Your task to perform on an android device: show emergency info Image 0: 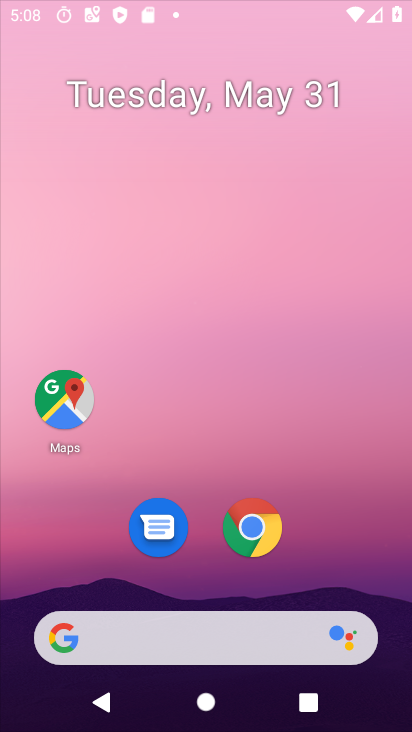
Step 0: drag from (357, 236) to (384, 71)
Your task to perform on an android device: show emergency info Image 1: 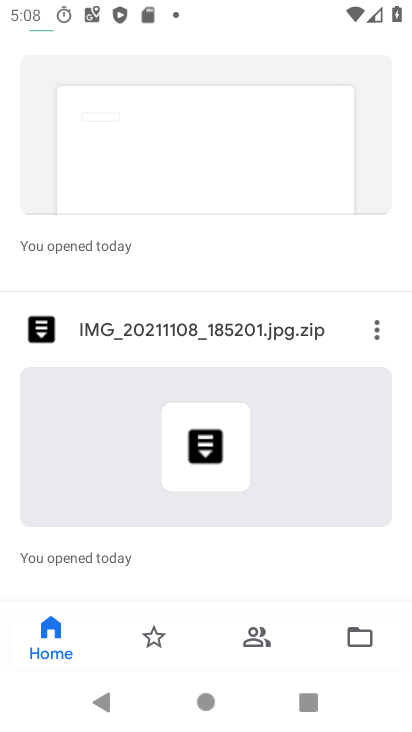
Step 1: press home button
Your task to perform on an android device: show emergency info Image 2: 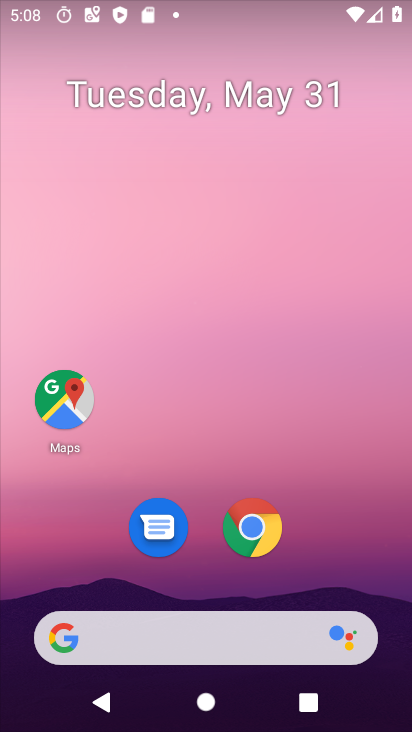
Step 2: drag from (304, 535) to (322, 134)
Your task to perform on an android device: show emergency info Image 3: 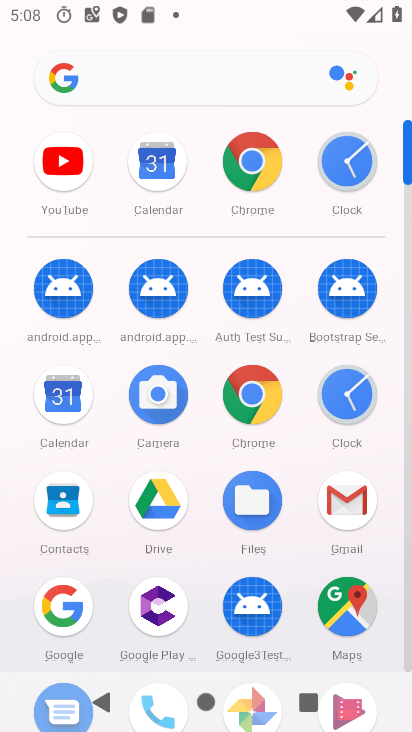
Step 3: drag from (200, 317) to (198, 101)
Your task to perform on an android device: show emergency info Image 4: 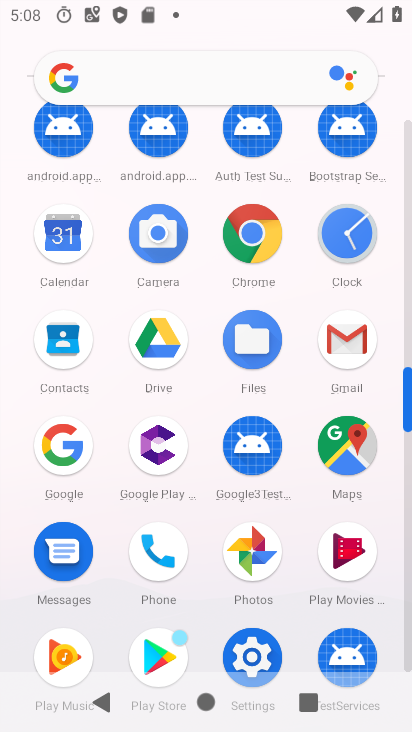
Step 4: click (258, 658)
Your task to perform on an android device: show emergency info Image 5: 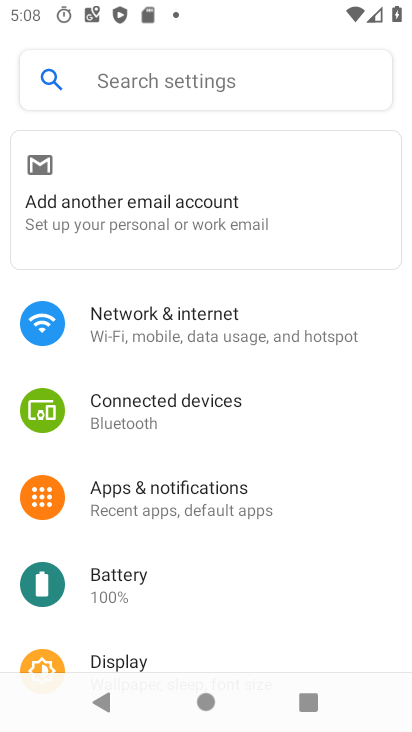
Step 5: drag from (231, 589) to (241, 118)
Your task to perform on an android device: show emergency info Image 6: 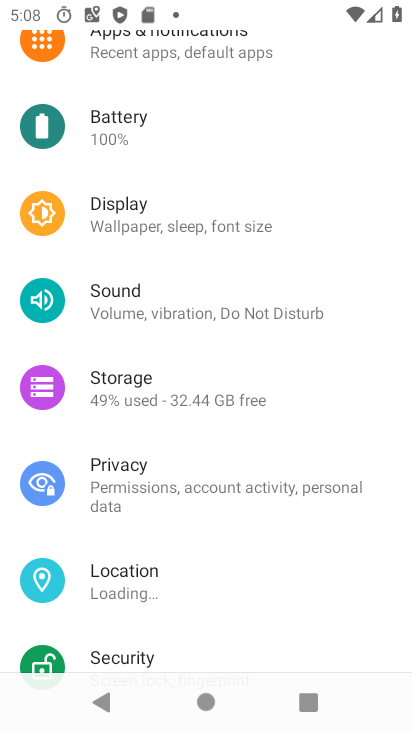
Step 6: drag from (196, 616) to (236, 260)
Your task to perform on an android device: show emergency info Image 7: 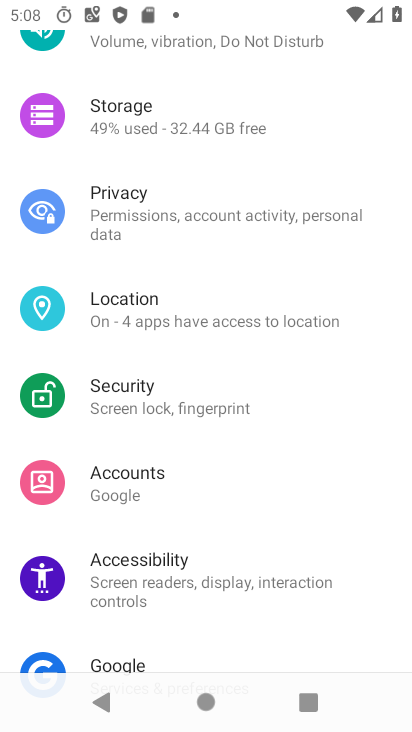
Step 7: drag from (200, 575) to (233, 208)
Your task to perform on an android device: show emergency info Image 8: 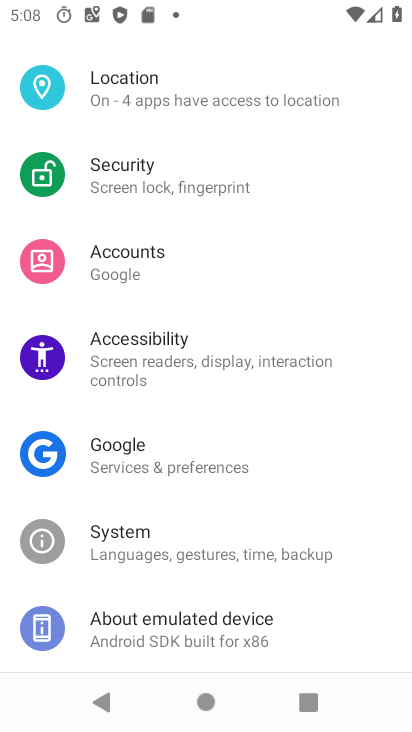
Step 8: drag from (201, 217) to (154, 530)
Your task to perform on an android device: show emergency info Image 9: 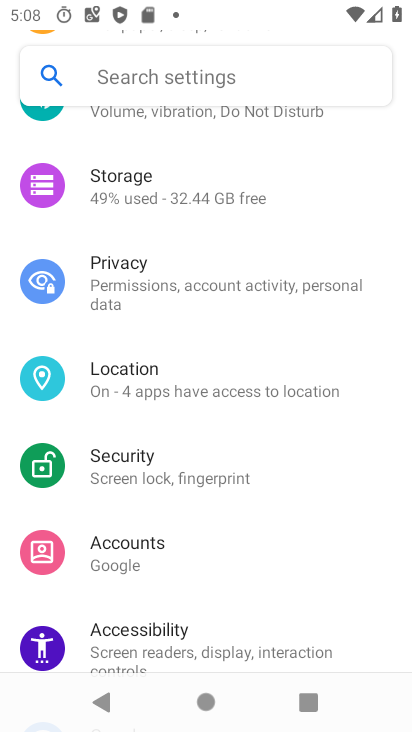
Step 9: drag from (205, 245) to (179, 524)
Your task to perform on an android device: show emergency info Image 10: 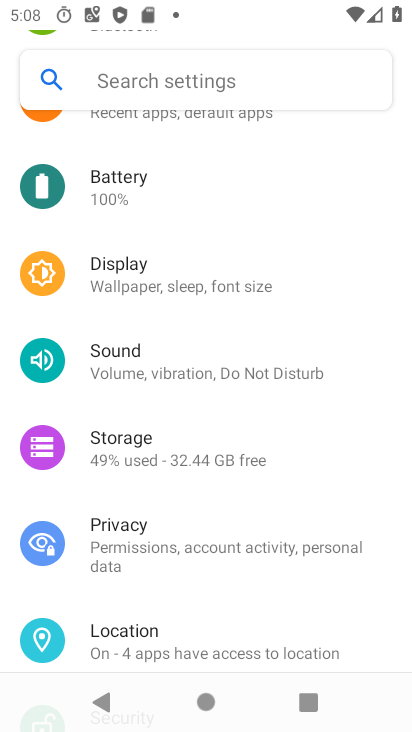
Step 10: drag from (231, 266) to (194, 545)
Your task to perform on an android device: show emergency info Image 11: 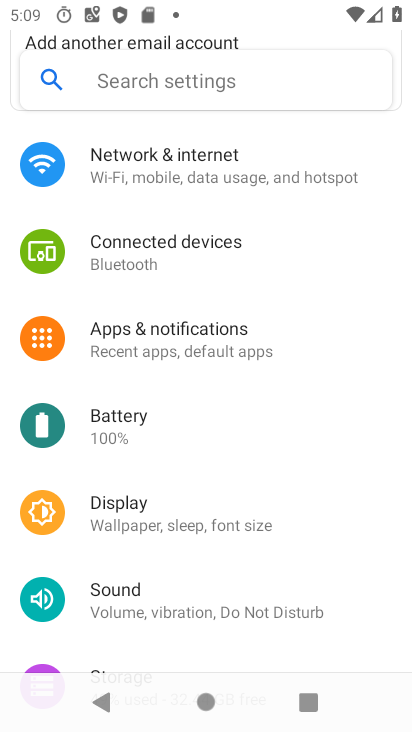
Step 11: drag from (235, 338) to (224, 455)
Your task to perform on an android device: show emergency info Image 12: 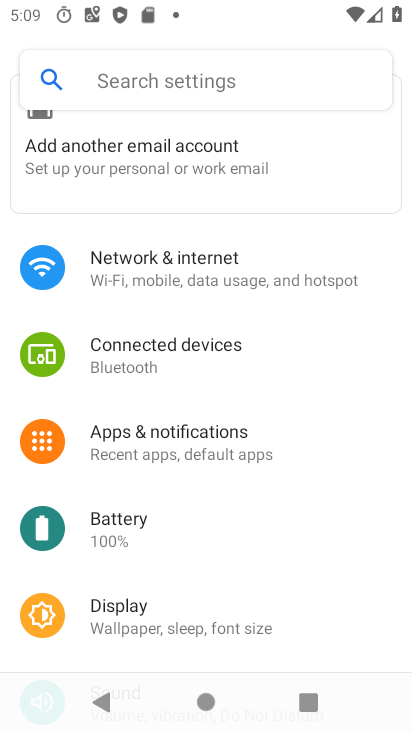
Step 12: drag from (216, 572) to (303, 31)
Your task to perform on an android device: show emergency info Image 13: 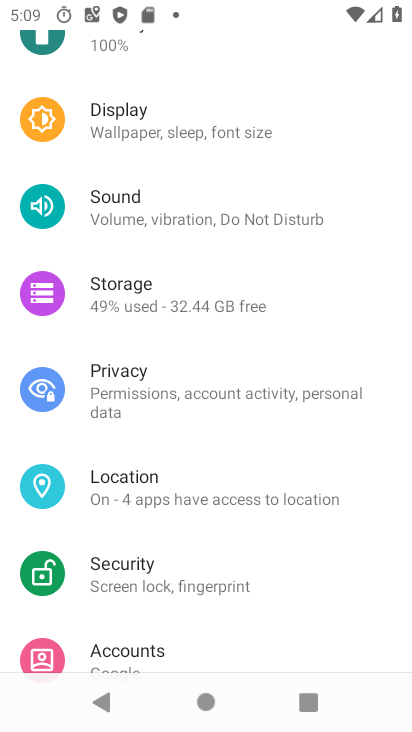
Step 13: drag from (194, 541) to (266, 103)
Your task to perform on an android device: show emergency info Image 14: 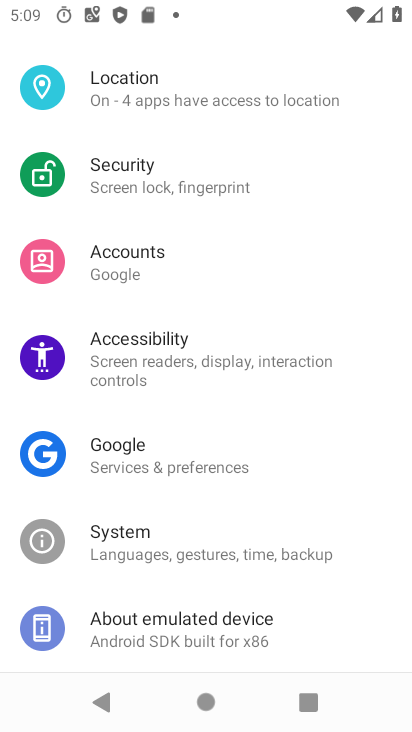
Step 14: drag from (212, 546) to (259, 100)
Your task to perform on an android device: show emergency info Image 15: 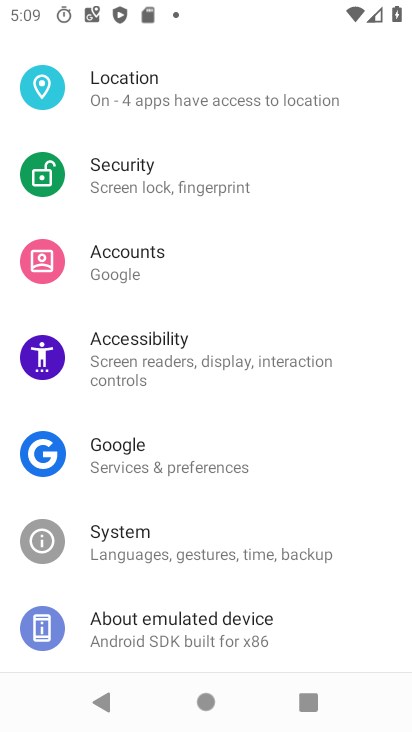
Step 15: click (192, 629)
Your task to perform on an android device: show emergency info Image 16: 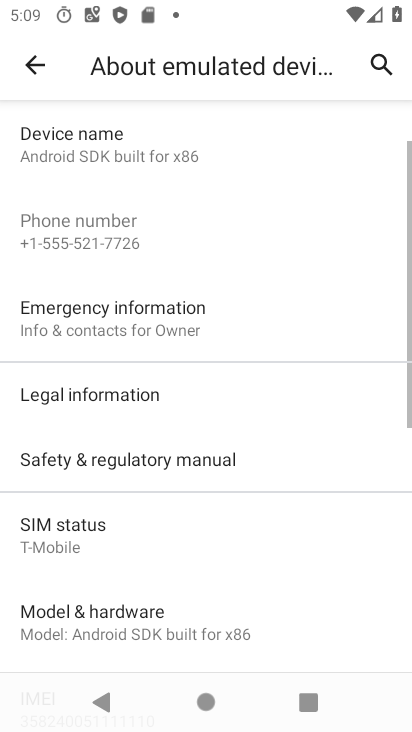
Step 16: click (156, 322)
Your task to perform on an android device: show emergency info Image 17: 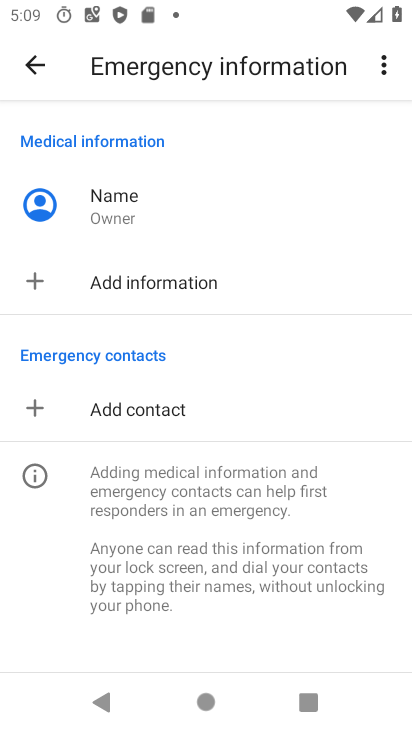
Step 17: task complete